Your task to perform on an android device: change text size in settings app Image 0: 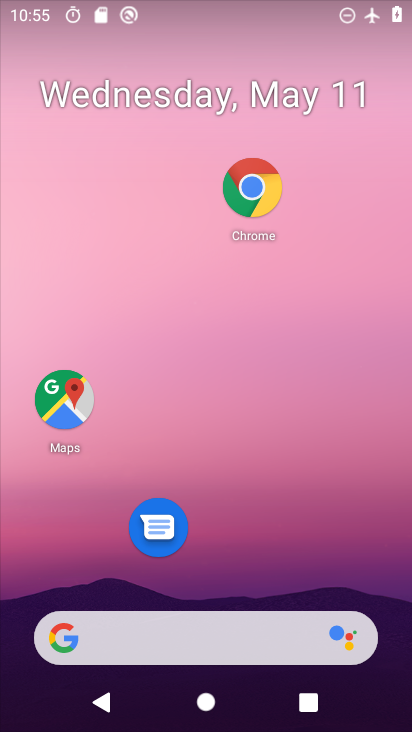
Step 0: drag from (235, 586) to (279, 103)
Your task to perform on an android device: change text size in settings app Image 1: 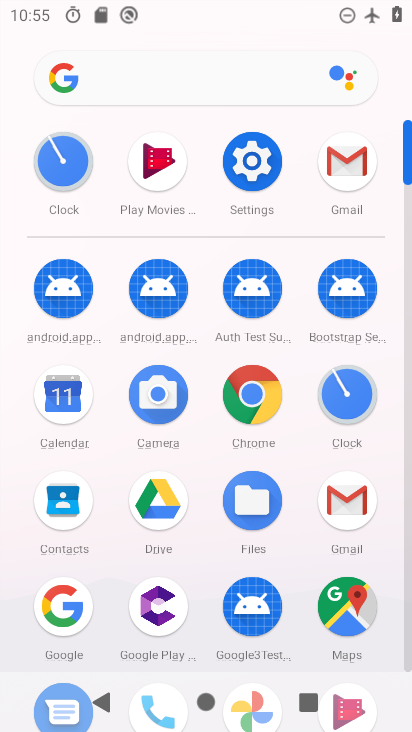
Step 1: click (259, 177)
Your task to perform on an android device: change text size in settings app Image 2: 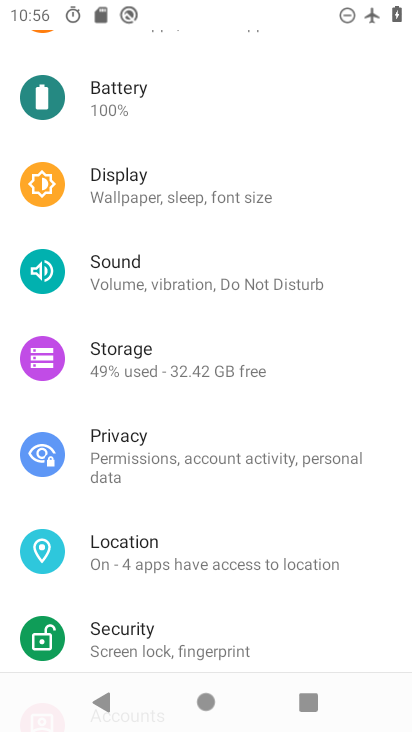
Step 2: drag from (182, 535) to (227, 193)
Your task to perform on an android device: change text size in settings app Image 3: 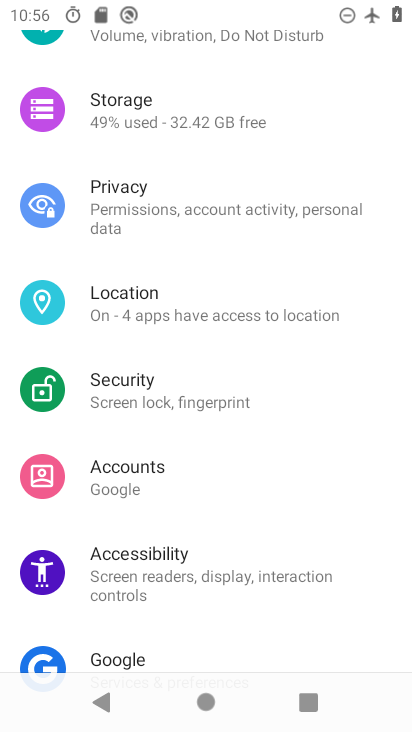
Step 3: drag from (196, 223) to (170, 467)
Your task to perform on an android device: change text size in settings app Image 4: 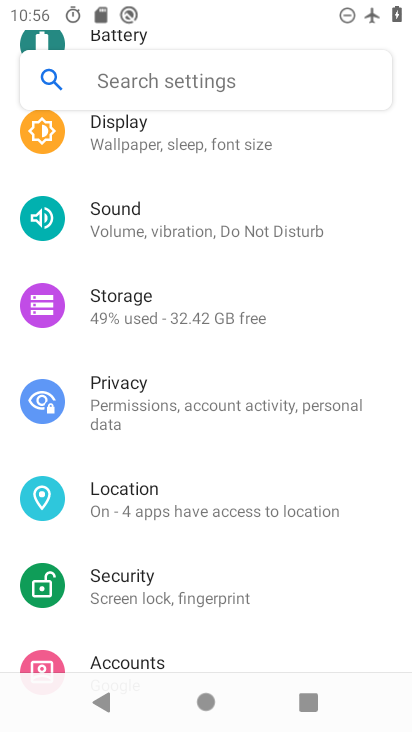
Step 4: click (201, 159)
Your task to perform on an android device: change text size in settings app Image 5: 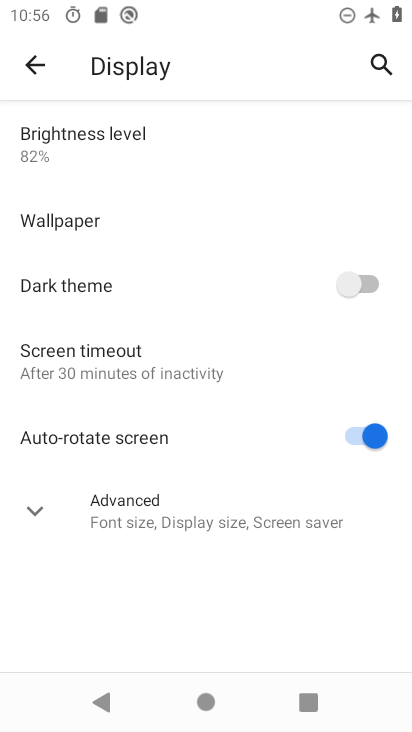
Step 5: click (181, 518)
Your task to perform on an android device: change text size in settings app Image 6: 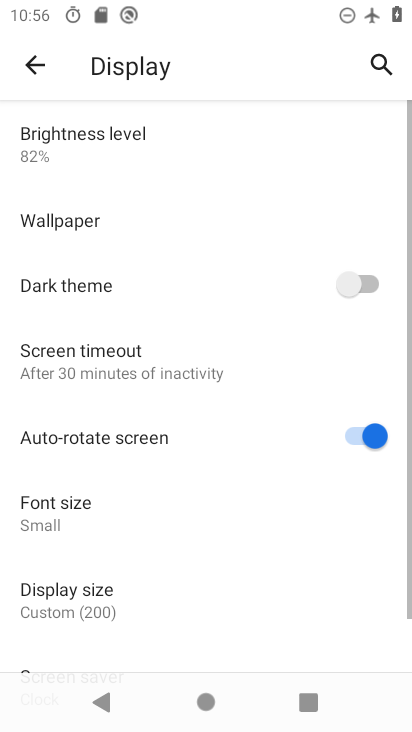
Step 6: drag from (160, 549) to (167, 331)
Your task to perform on an android device: change text size in settings app Image 7: 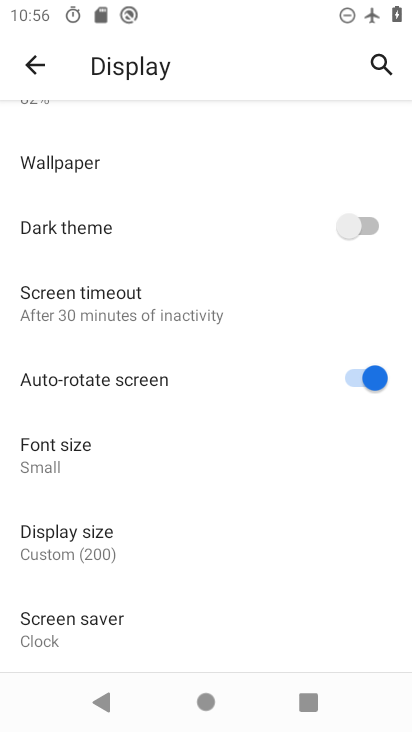
Step 7: drag from (151, 400) to (166, 190)
Your task to perform on an android device: change text size in settings app Image 8: 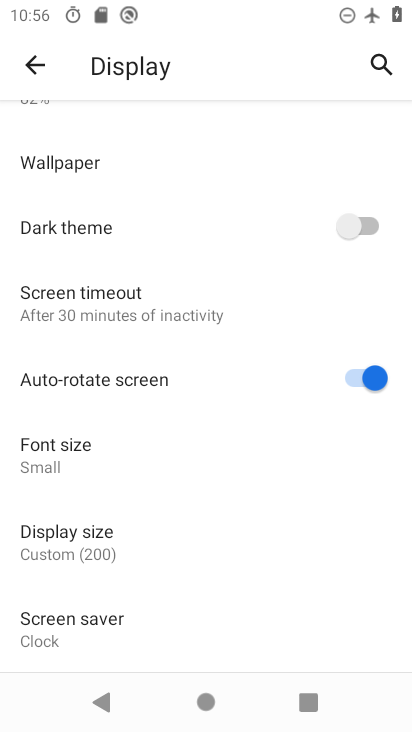
Step 8: click (110, 483)
Your task to perform on an android device: change text size in settings app Image 9: 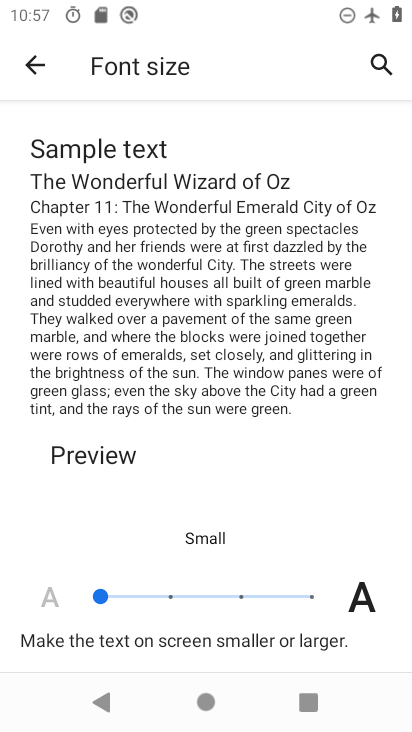
Step 9: click (150, 593)
Your task to perform on an android device: change text size in settings app Image 10: 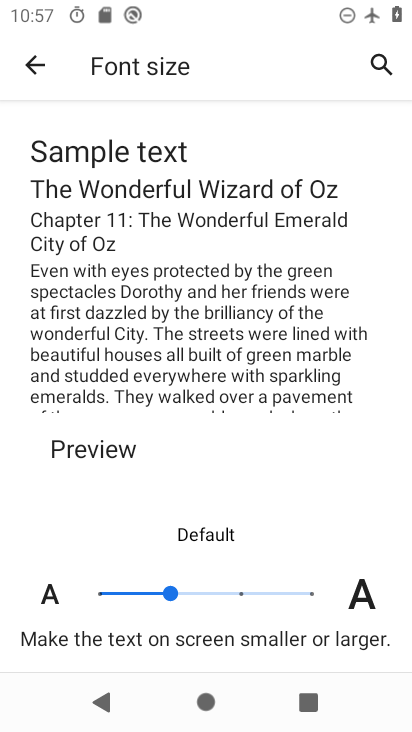
Step 10: task complete